Your task to perform on an android device: What's the weather today? Image 0: 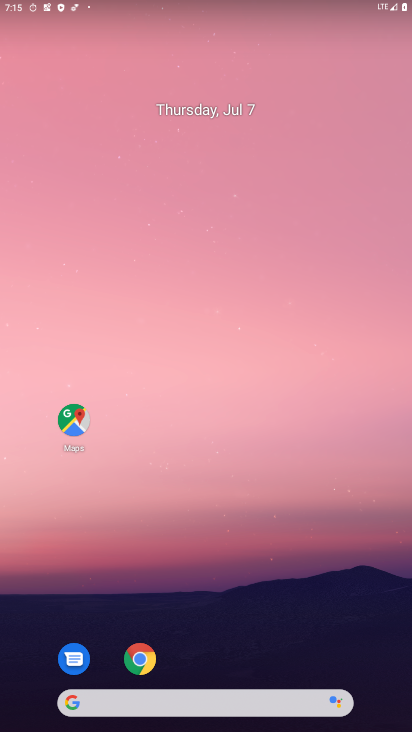
Step 0: drag from (369, 676) to (313, 66)
Your task to perform on an android device: What's the weather today? Image 1: 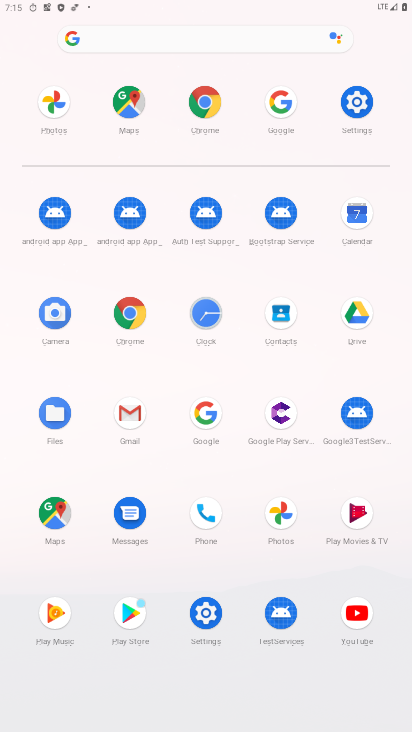
Step 1: click (198, 405)
Your task to perform on an android device: What's the weather today? Image 2: 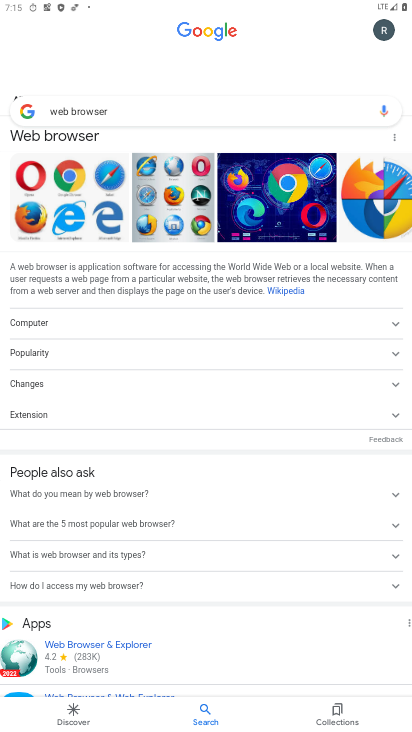
Step 2: press back button
Your task to perform on an android device: What's the weather today? Image 3: 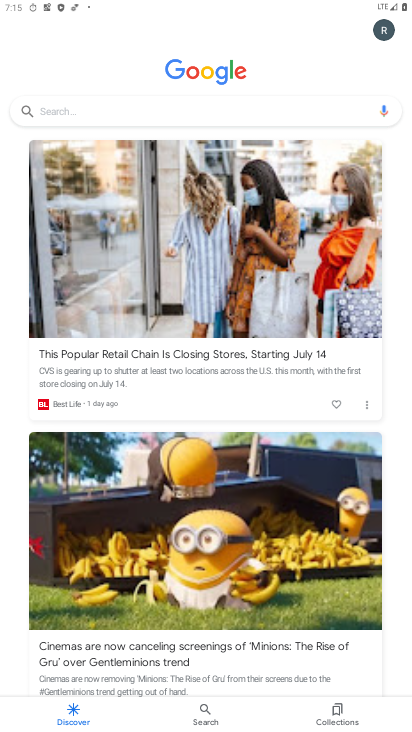
Step 3: click (199, 99)
Your task to perform on an android device: What's the weather today? Image 4: 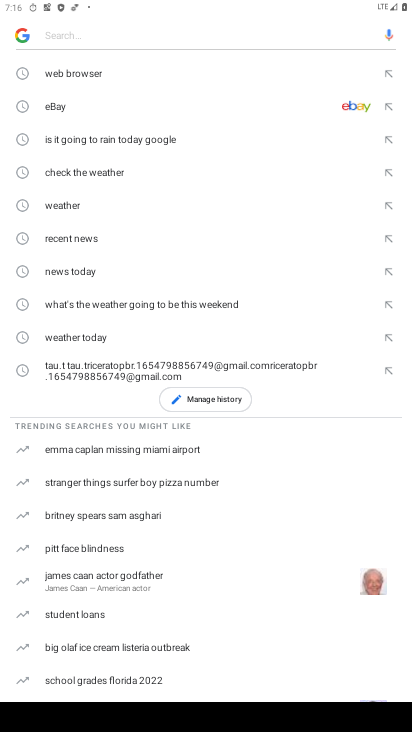
Step 4: type "What's the weather today?"
Your task to perform on an android device: What's the weather today? Image 5: 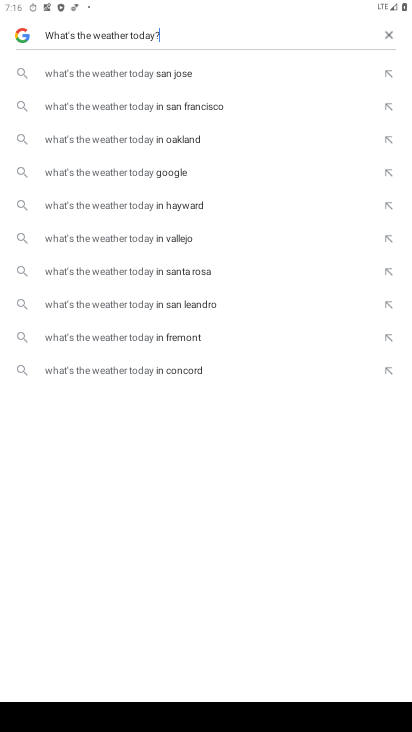
Step 5: click (134, 172)
Your task to perform on an android device: What's the weather today? Image 6: 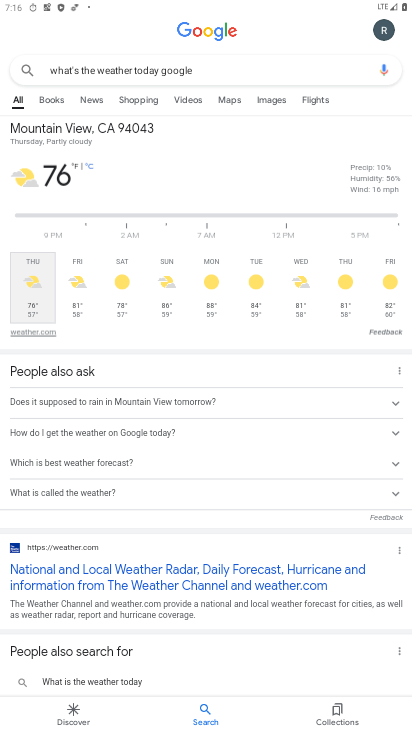
Step 6: task complete